Your task to perform on an android device: Go to eBay Image 0: 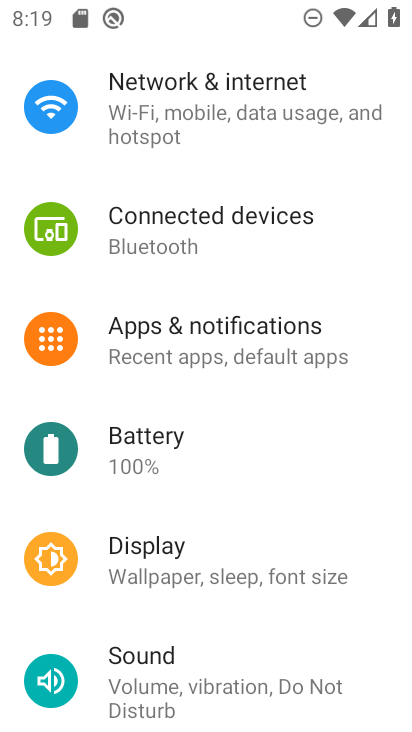
Step 0: press home button
Your task to perform on an android device: Go to eBay Image 1: 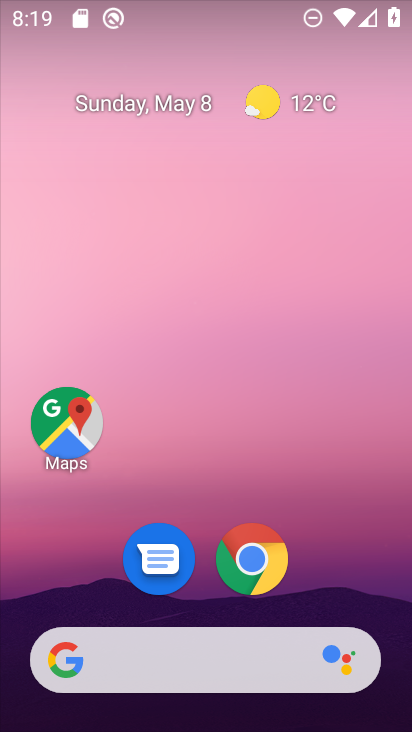
Step 1: click (255, 564)
Your task to perform on an android device: Go to eBay Image 2: 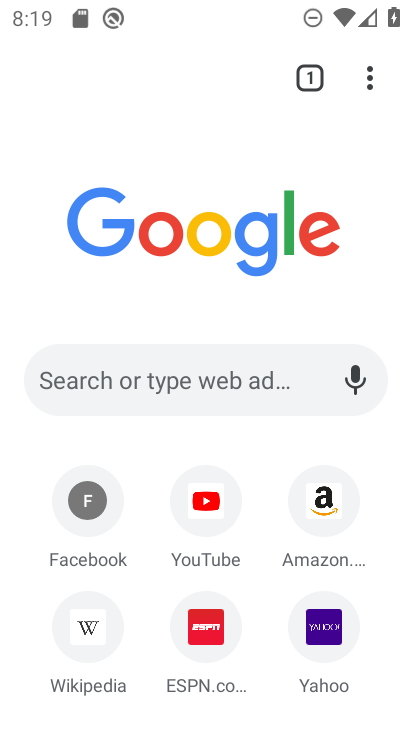
Step 2: click (92, 368)
Your task to perform on an android device: Go to eBay Image 3: 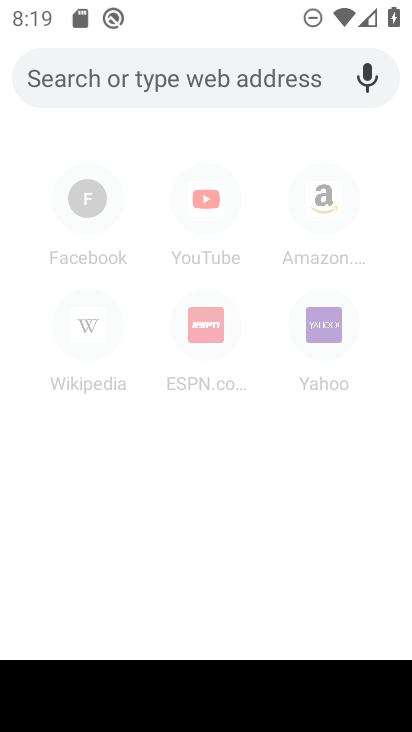
Step 3: type "ebay"
Your task to perform on an android device: Go to eBay Image 4: 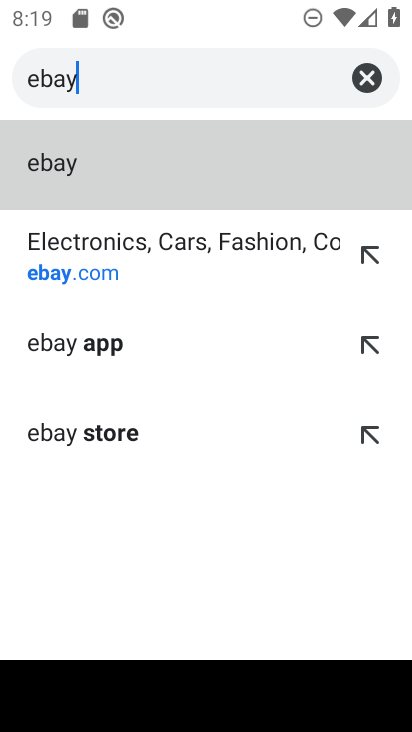
Step 4: click (61, 167)
Your task to perform on an android device: Go to eBay Image 5: 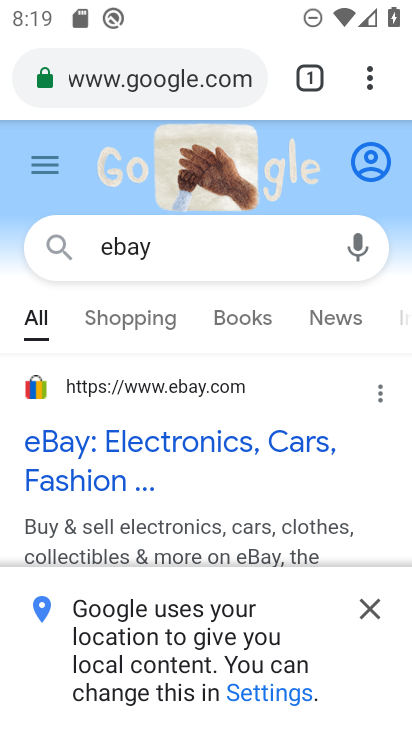
Step 5: click (59, 445)
Your task to perform on an android device: Go to eBay Image 6: 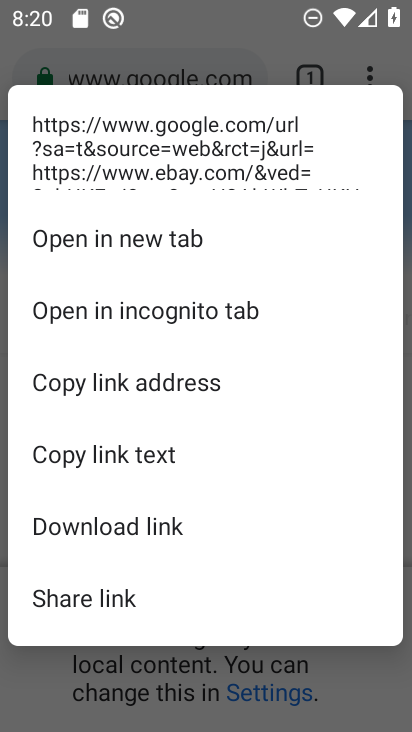
Step 6: press back button
Your task to perform on an android device: Go to eBay Image 7: 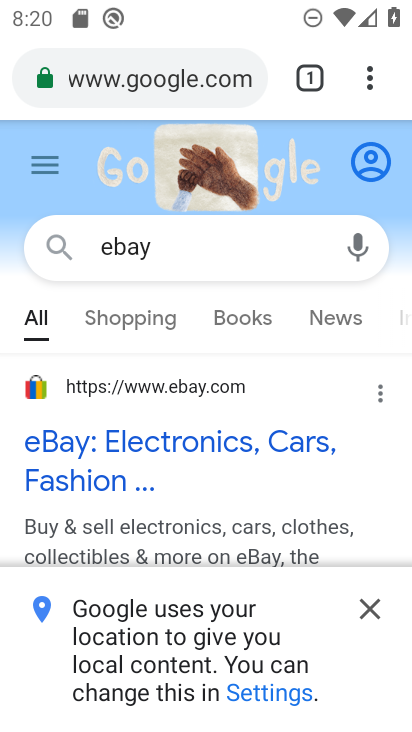
Step 7: click (78, 389)
Your task to perform on an android device: Go to eBay Image 8: 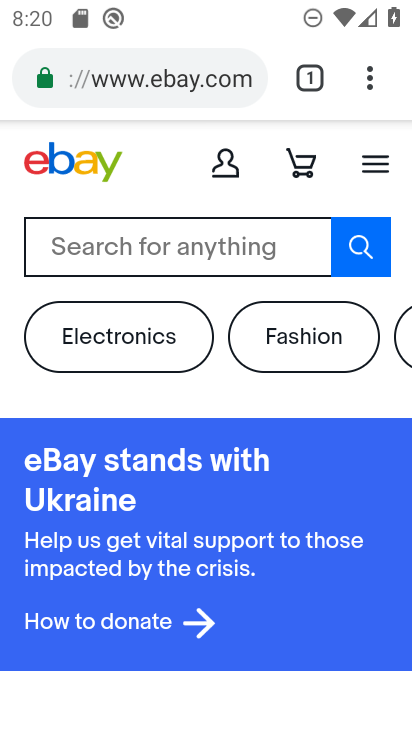
Step 8: task complete